Your task to perform on an android device: Open internet settings Image 0: 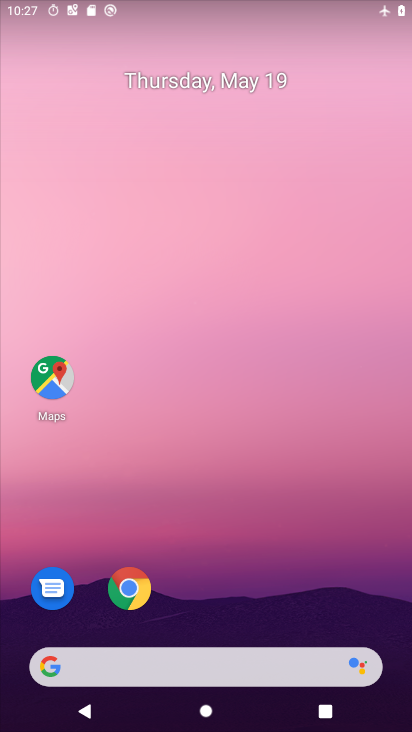
Step 0: press home button
Your task to perform on an android device: Open internet settings Image 1: 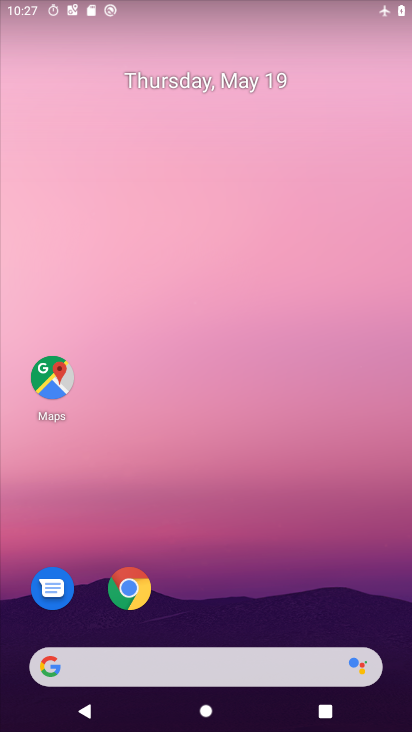
Step 1: drag from (167, 671) to (320, 220)
Your task to perform on an android device: Open internet settings Image 2: 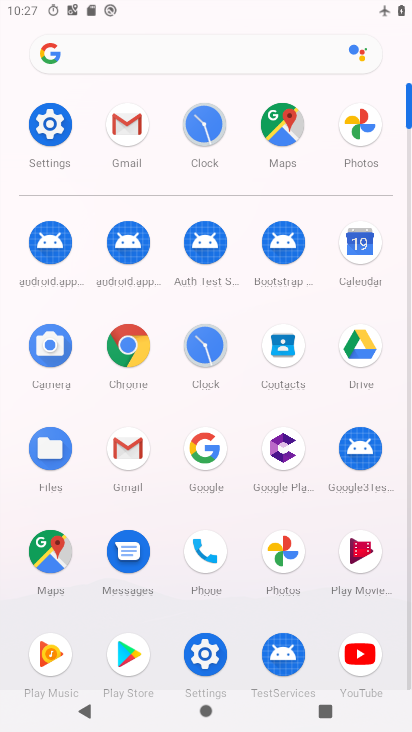
Step 2: click (52, 124)
Your task to perform on an android device: Open internet settings Image 3: 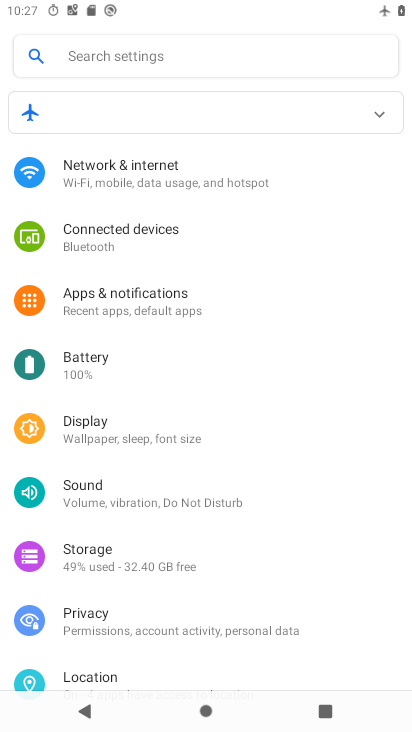
Step 3: click (122, 187)
Your task to perform on an android device: Open internet settings Image 4: 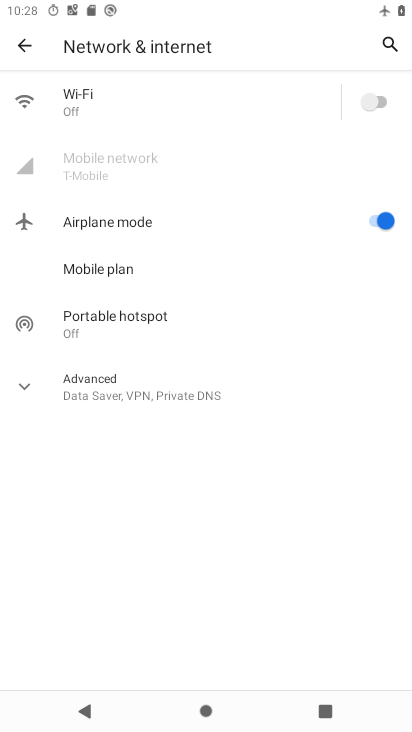
Step 4: task complete